Your task to perform on an android device: Search for vegetarian restaurants on Maps Image 0: 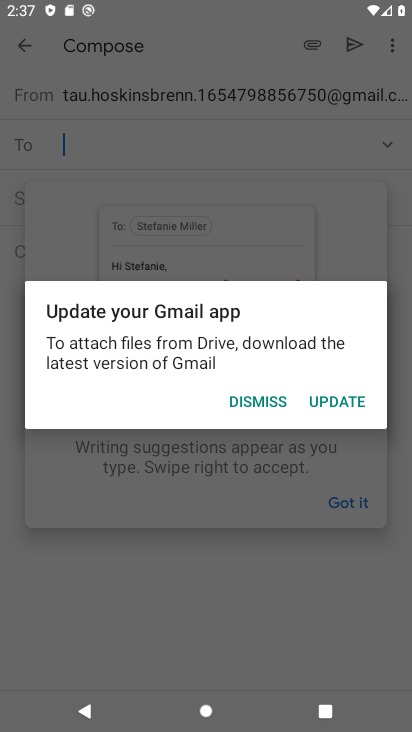
Step 0: press home button
Your task to perform on an android device: Search for vegetarian restaurants on Maps Image 1: 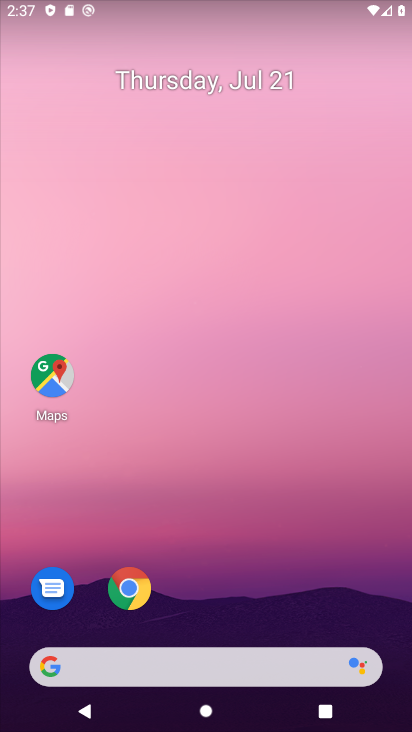
Step 1: click (44, 370)
Your task to perform on an android device: Search for vegetarian restaurants on Maps Image 2: 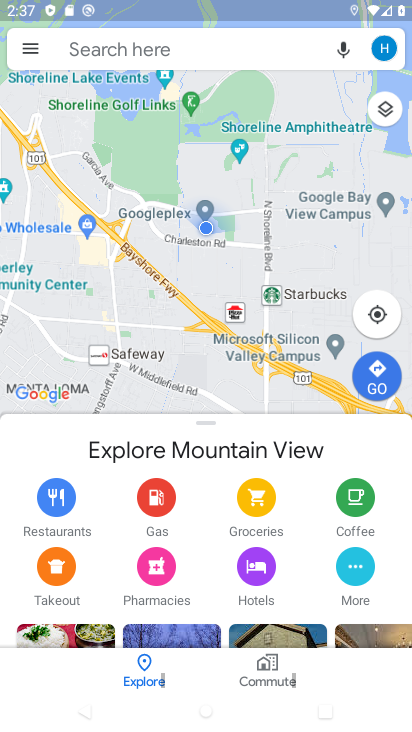
Step 2: click (121, 45)
Your task to perform on an android device: Search for vegetarian restaurants on Maps Image 3: 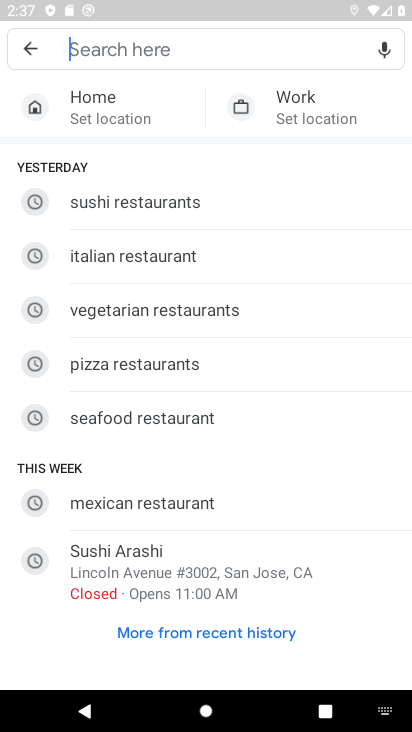
Step 3: click (123, 308)
Your task to perform on an android device: Search for vegetarian restaurants on Maps Image 4: 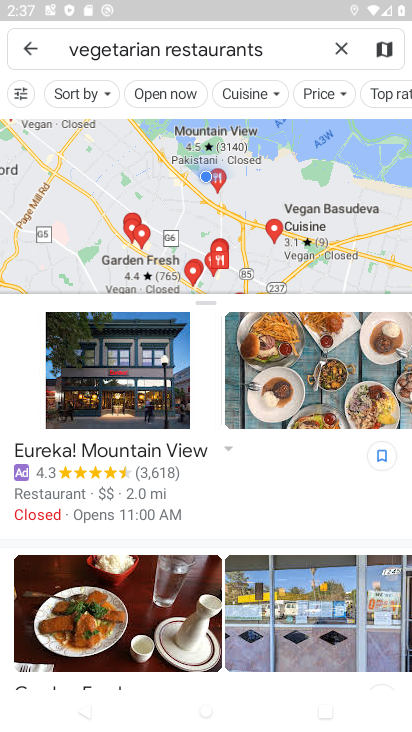
Step 4: task complete